Your task to perform on an android device: find which apps use the phone's location Image 0: 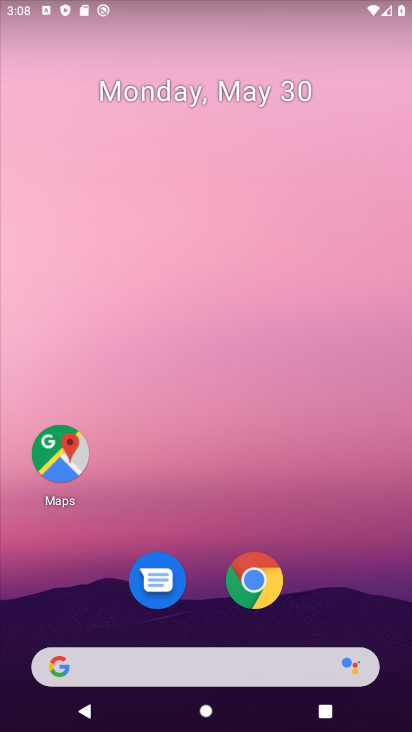
Step 0: drag from (204, 610) to (248, 38)
Your task to perform on an android device: find which apps use the phone's location Image 1: 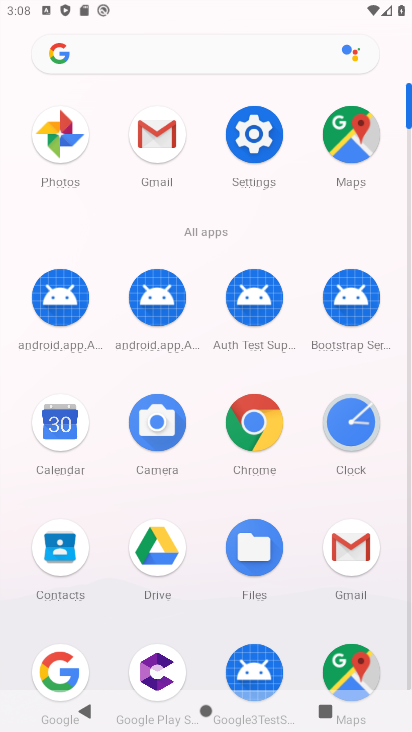
Step 1: click (255, 145)
Your task to perform on an android device: find which apps use the phone's location Image 2: 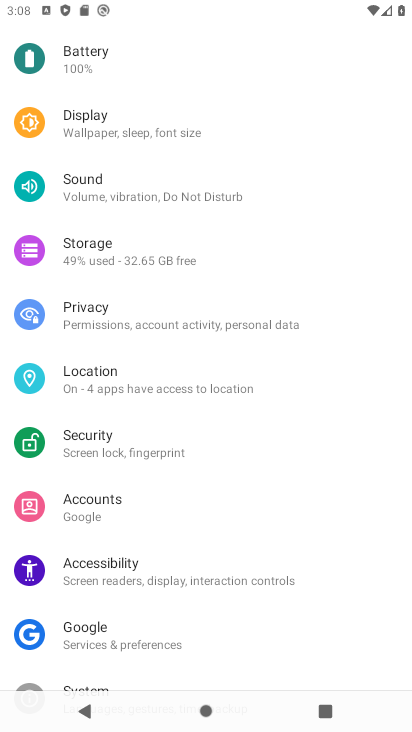
Step 2: drag from (163, 645) to (223, 193)
Your task to perform on an android device: find which apps use the phone's location Image 3: 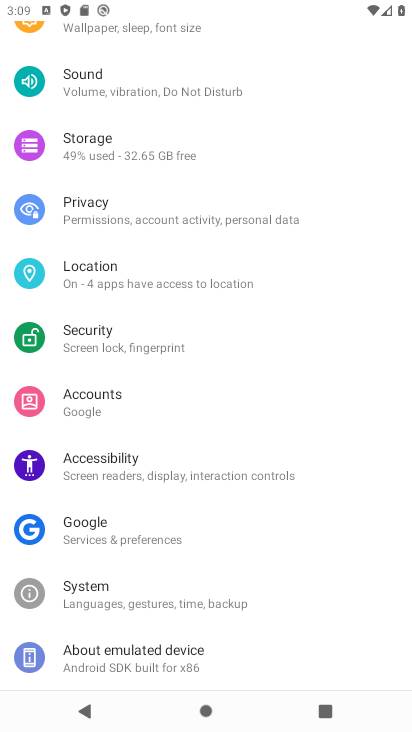
Step 3: click (122, 276)
Your task to perform on an android device: find which apps use the phone's location Image 4: 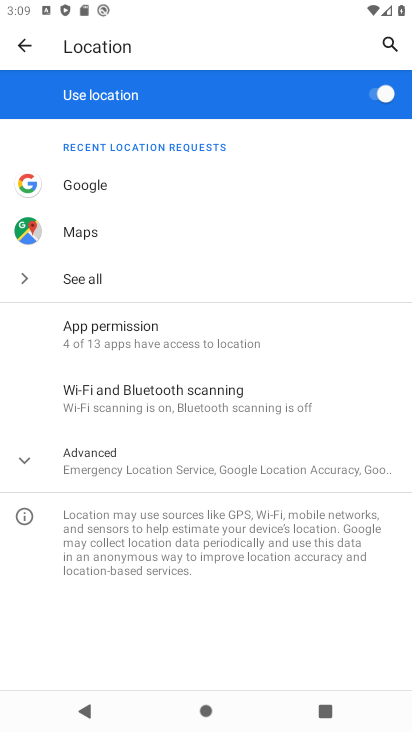
Step 4: click (168, 337)
Your task to perform on an android device: find which apps use the phone's location Image 5: 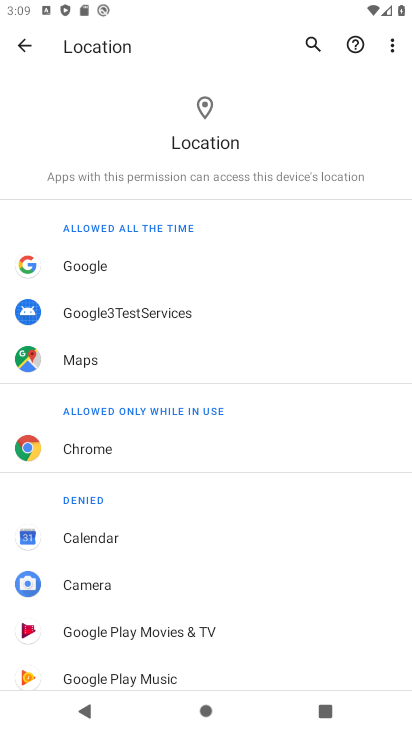
Step 5: task complete